Your task to perform on an android device: Show me the alarms in the clock app Image 0: 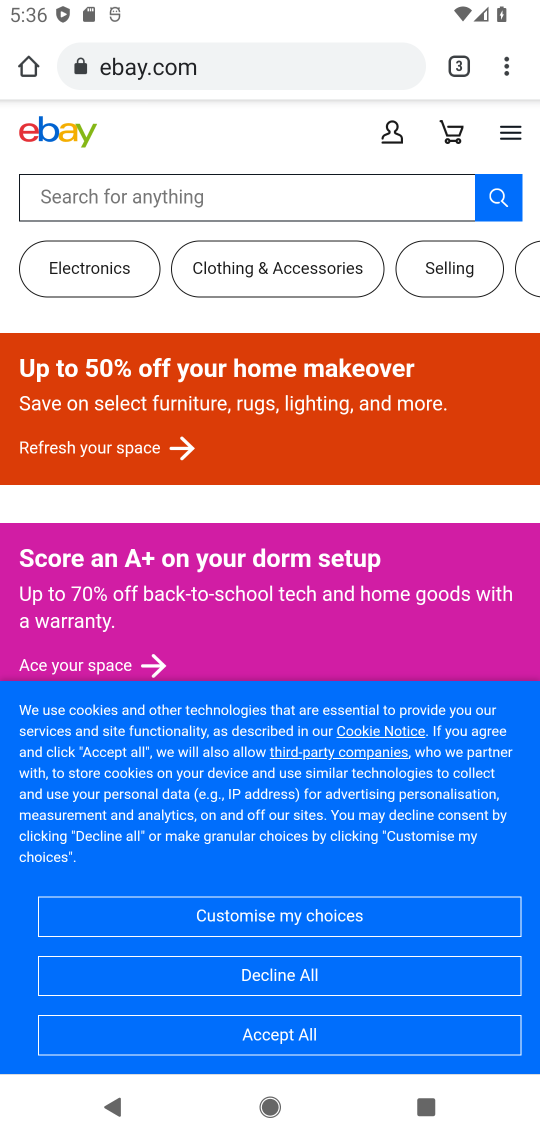
Step 0: press home button
Your task to perform on an android device: Show me the alarms in the clock app Image 1: 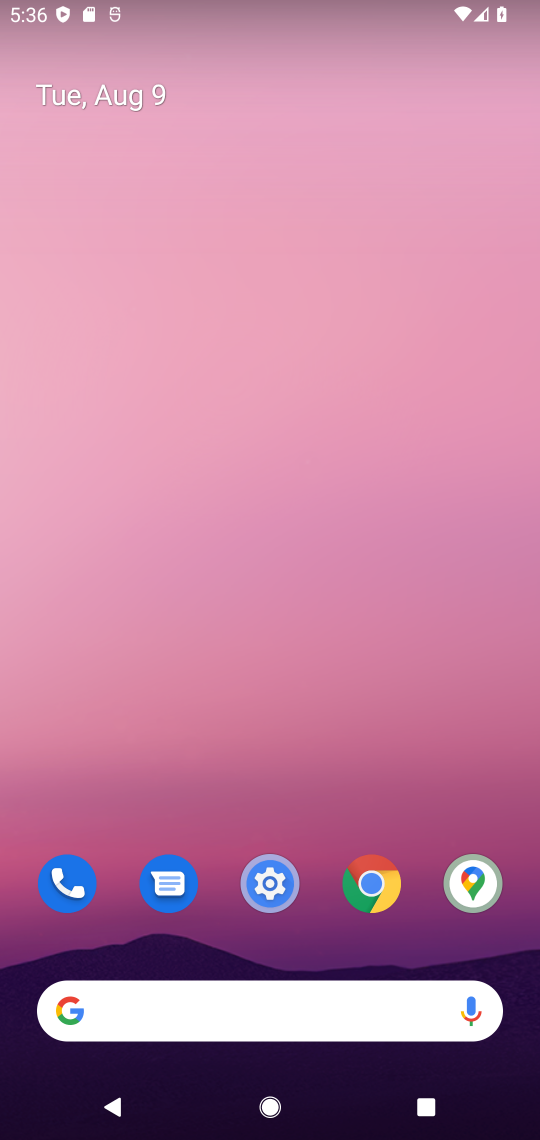
Step 1: drag from (251, 804) to (217, 169)
Your task to perform on an android device: Show me the alarms in the clock app Image 2: 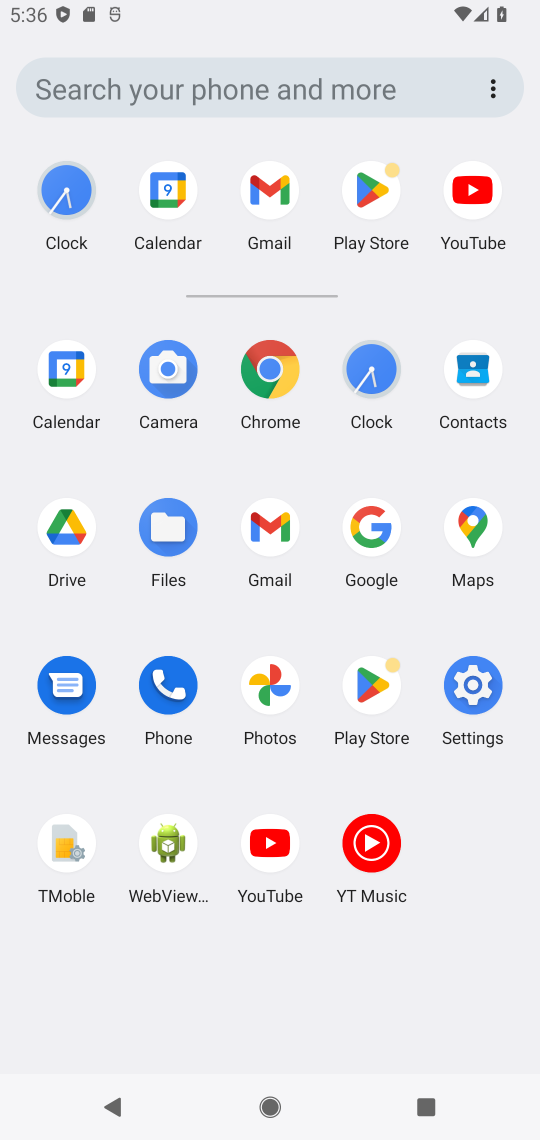
Step 2: click (372, 349)
Your task to perform on an android device: Show me the alarms in the clock app Image 3: 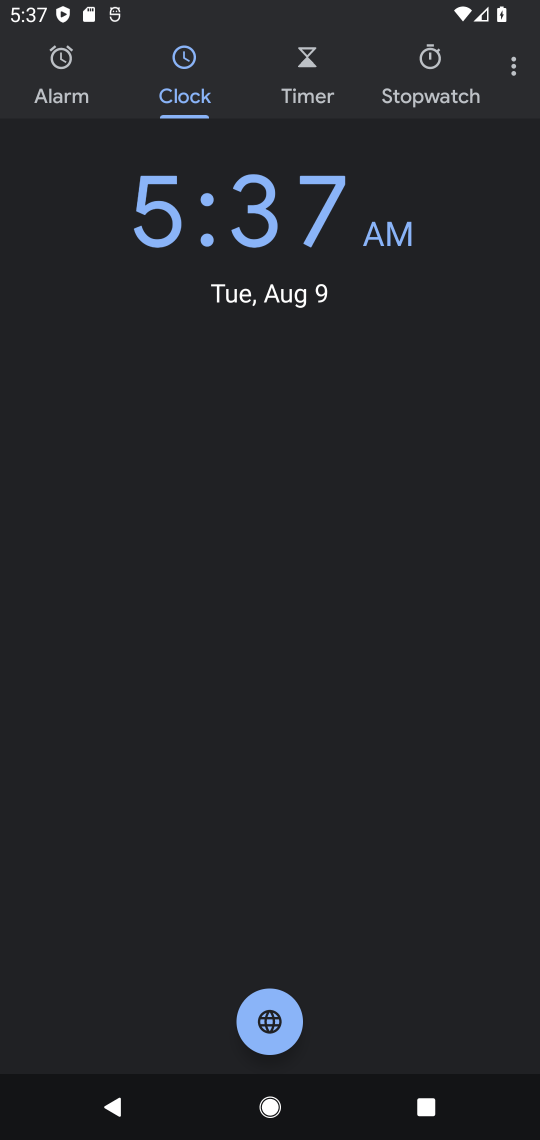
Step 3: click (65, 79)
Your task to perform on an android device: Show me the alarms in the clock app Image 4: 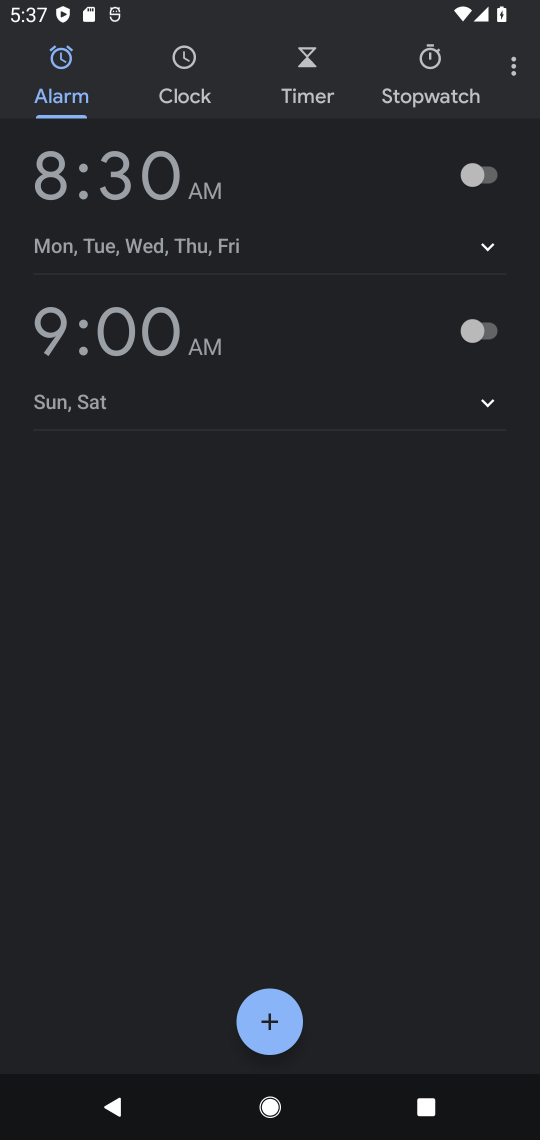
Step 4: task complete